Your task to perform on an android device: Go to Yahoo.com Image 0: 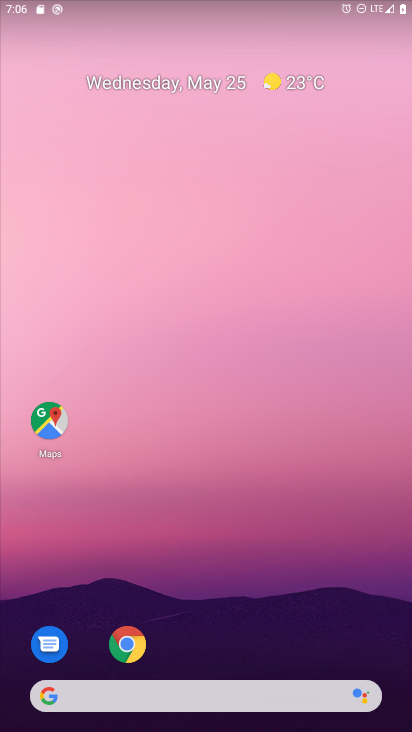
Step 0: drag from (288, 643) to (325, 59)
Your task to perform on an android device: Go to Yahoo.com Image 1: 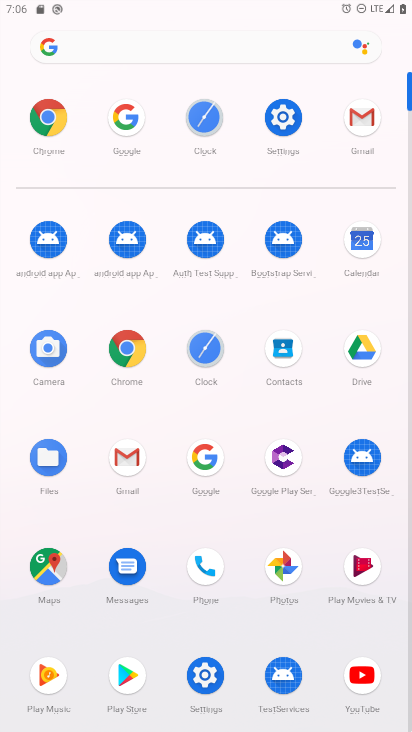
Step 1: click (187, 475)
Your task to perform on an android device: Go to Yahoo.com Image 2: 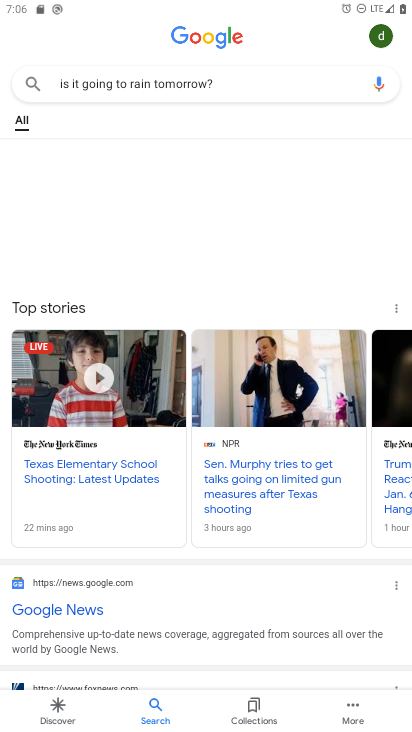
Step 2: press back button
Your task to perform on an android device: Go to Yahoo.com Image 3: 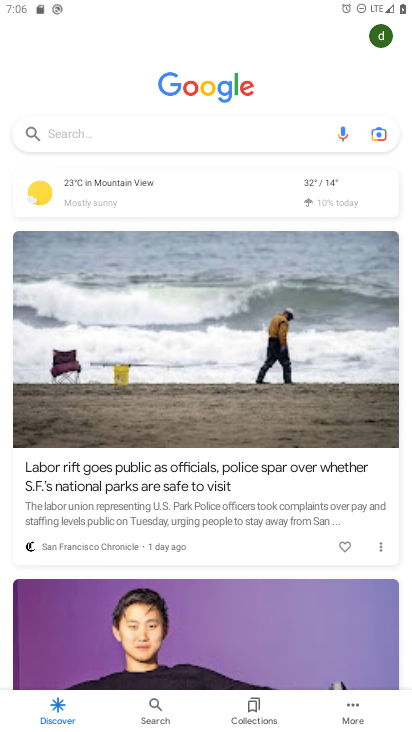
Step 3: click (139, 125)
Your task to perform on an android device: Go to Yahoo.com Image 4: 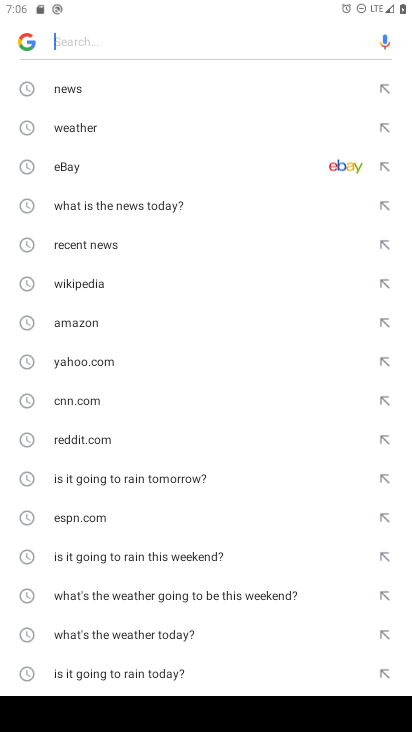
Step 4: click (113, 360)
Your task to perform on an android device: Go to Yahoo.com Image 5: 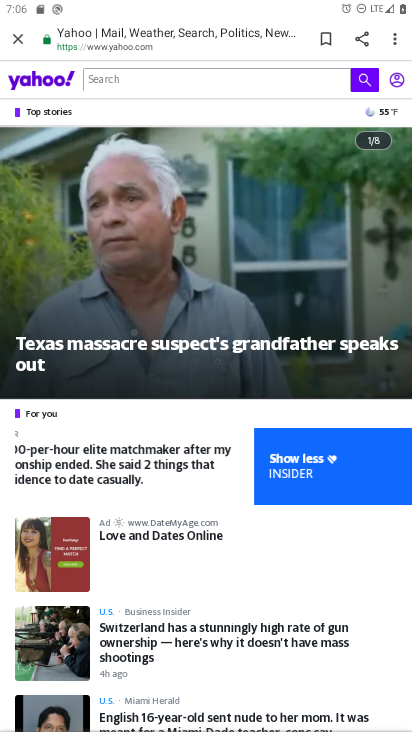
Step 5: task complete